Your task to perform on an android device: open a bookmark in the chrome app Image 0: 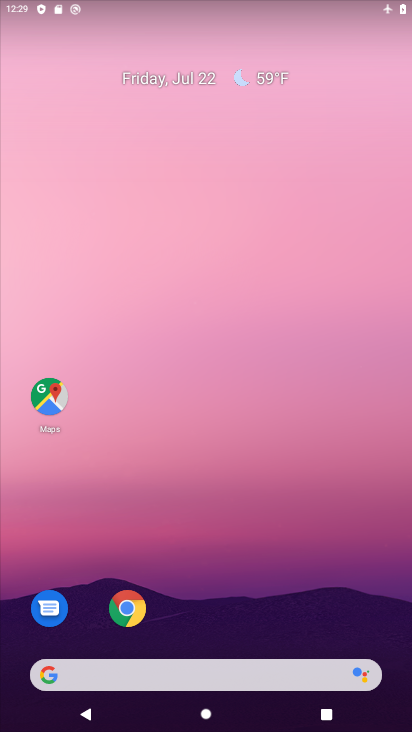
Step 0: click (135, 609)
Your task to perform on an android device: open a bookmark in the chrome app Image 1: 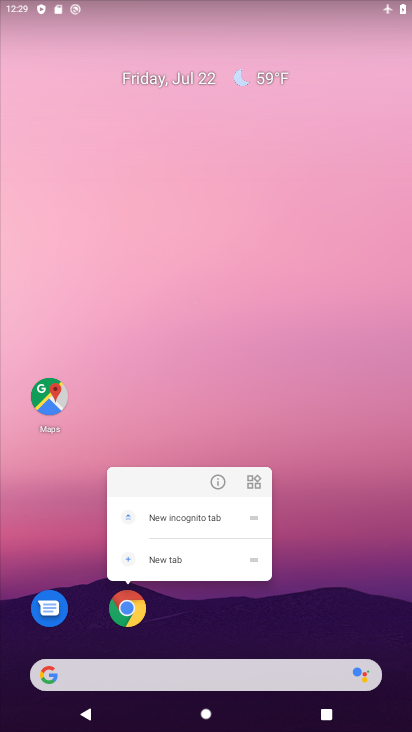
Step 1: click (131, 617)
Your task to perform on an android device: open a bookmark in the chrome app Image 2: 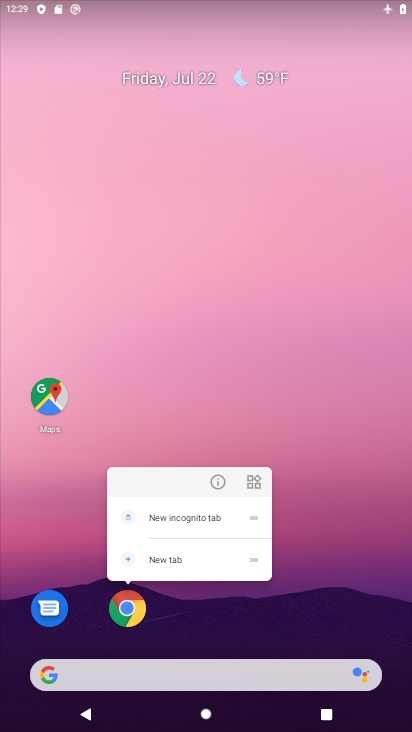
Step 2: click (130, 617)
Your task to perform on an android device: open a bookmark in the chrome app Image 3: 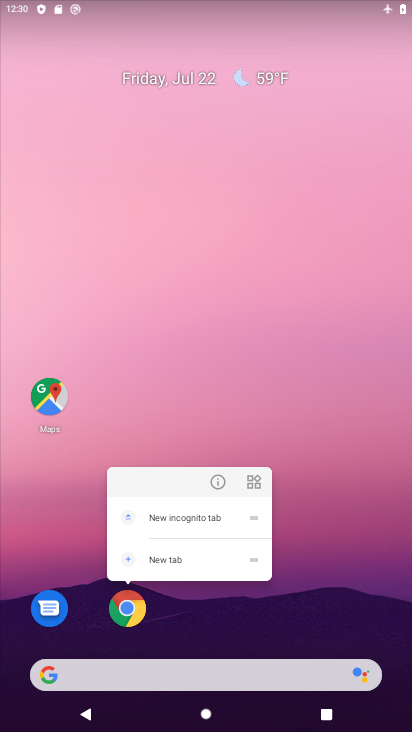
Step 3: click (128, 617)
Your task to perform on an android device: open a bookmark in the chrome app Image 4: 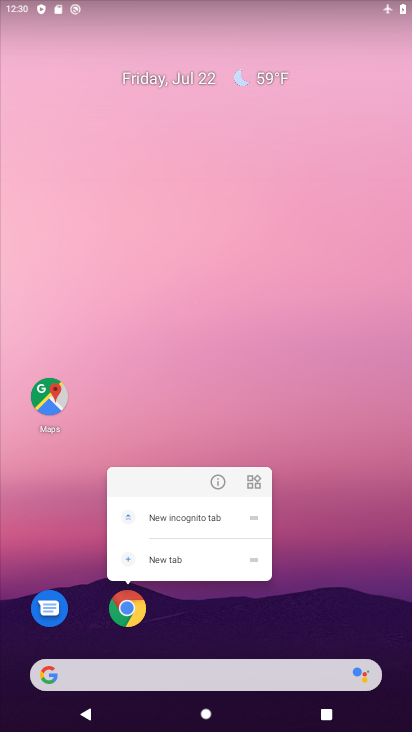
Step 4: click (125, 615)
Your task to perform on an android device: open a bookmark in the chrome app Image 5: 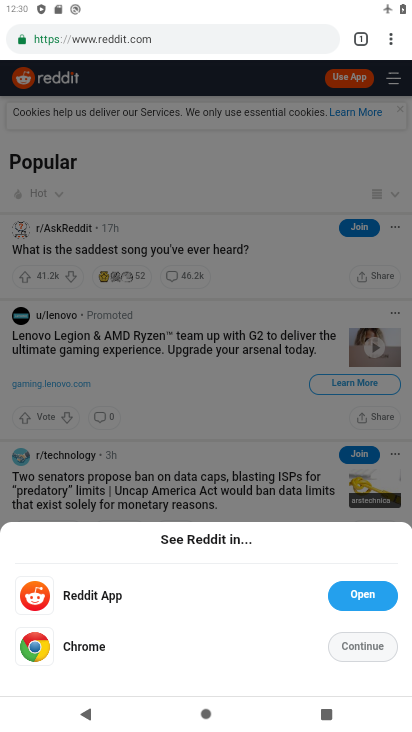
Step 5: click (390, 41)
Your task to perform on an android device: open a bookmark in the chrome app Image 6: 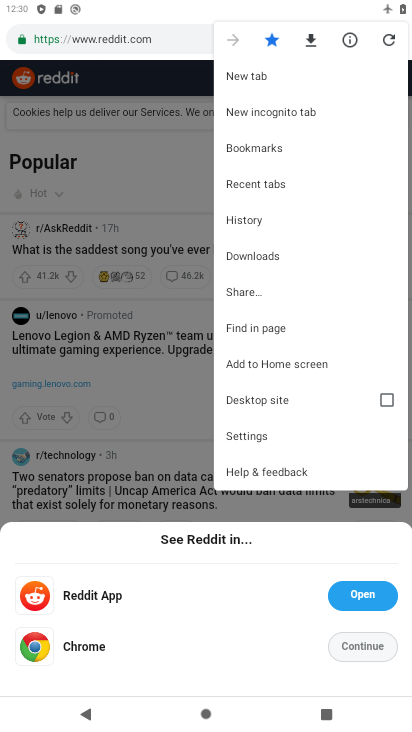
Step 6: click (271, 144)
Your task to perform on an android device: open a bookmark in the chrome app Image 7: 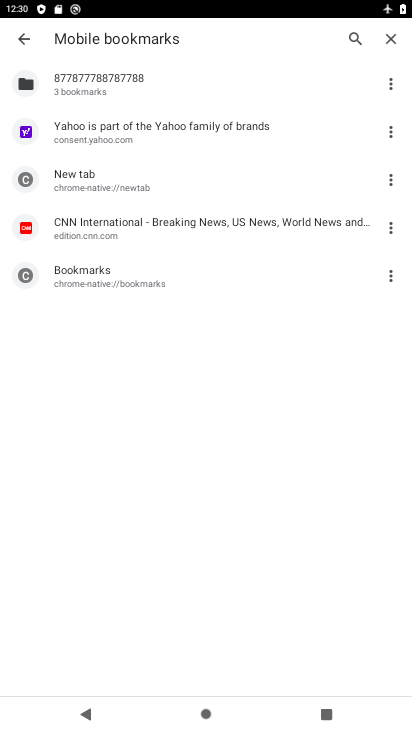
Step 7: click (100, 181)
Your task to perform on an android device: open a bookmark in the chrome app Image 8: 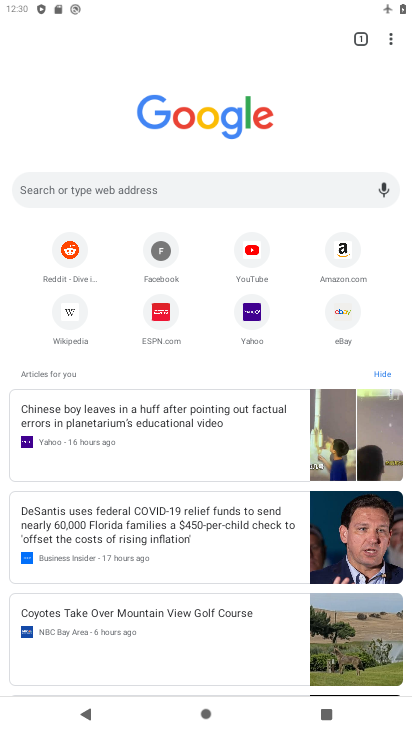
Step 8: task complete